Your task to perform on an android device: Is it going to rain today? Image 0: 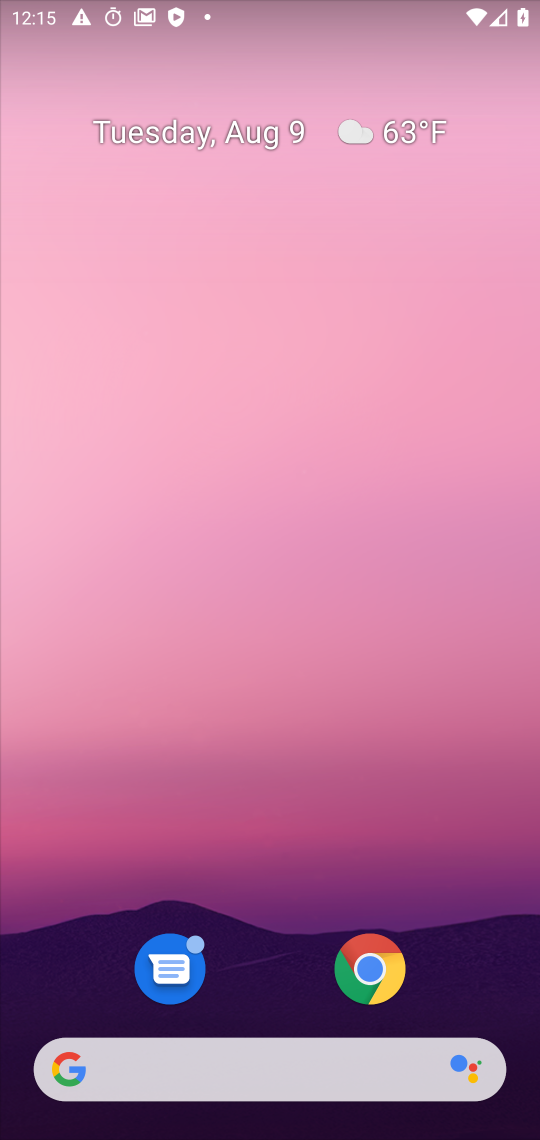
Step 0: click (360, 144)
Your task to perform on an android device: Is it going to rain today? Image 1: 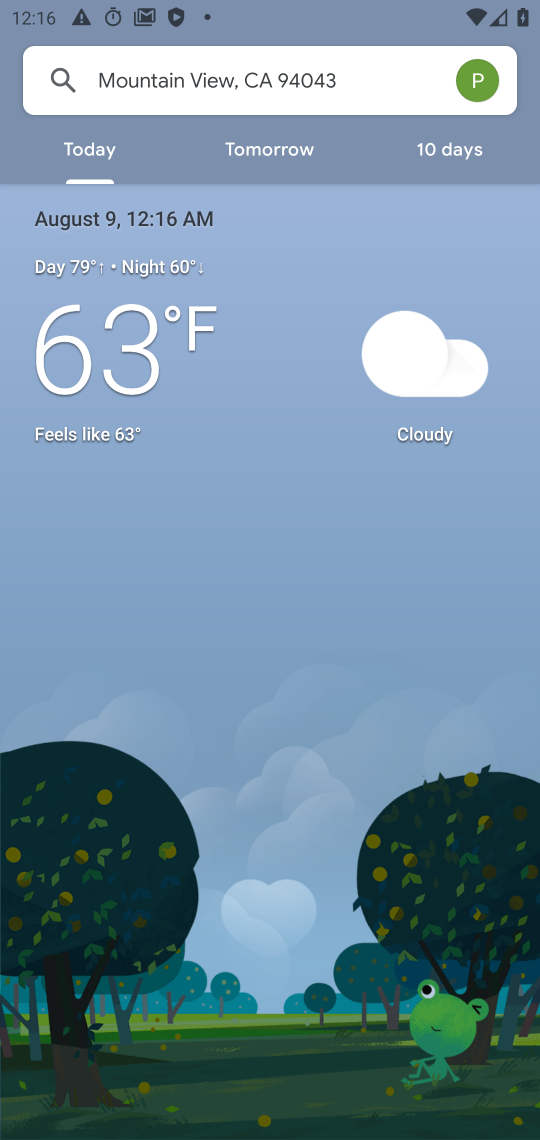
Step 1: task complete